Your task to perform on an android device: turn on airplane mode Image 0: 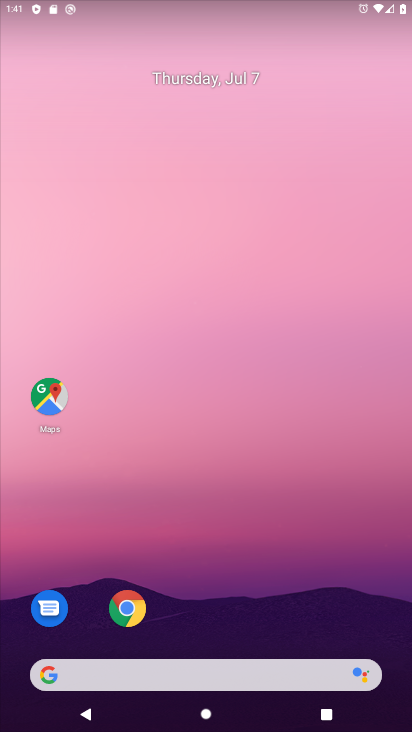
Step 0: drag from (233, 703) to (233, 220)
Your task to perform on an android device: turn on airplane mode Image 1: 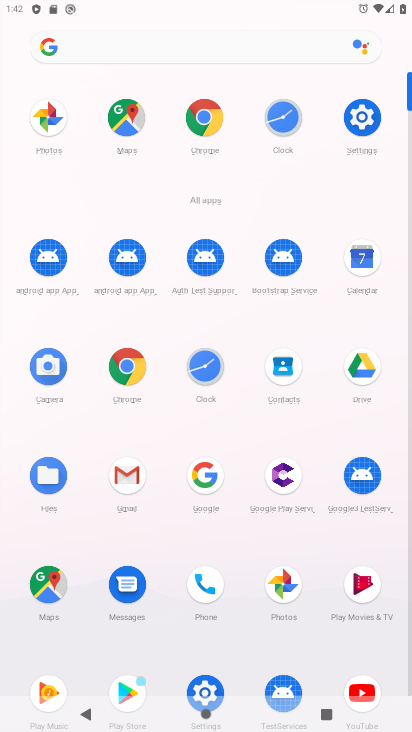
Step 1: click (366, 112)
Your task to perform on an android device: turn on airplane mode Image 2: 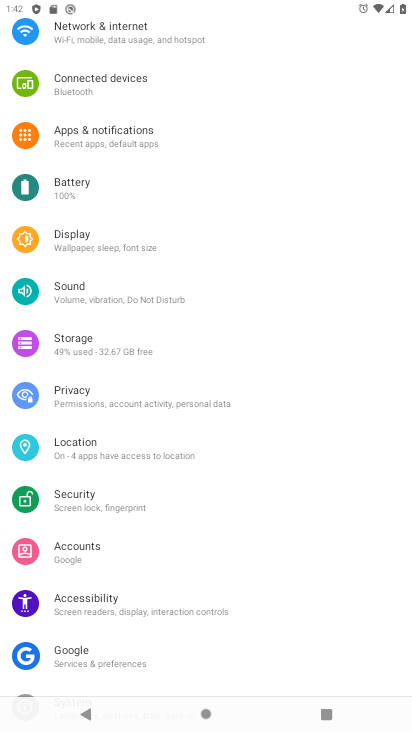
Step 2: drag from (170, 67) to (188, 500)
Your task to perform on an android device: turn on airplane mode Image 3: 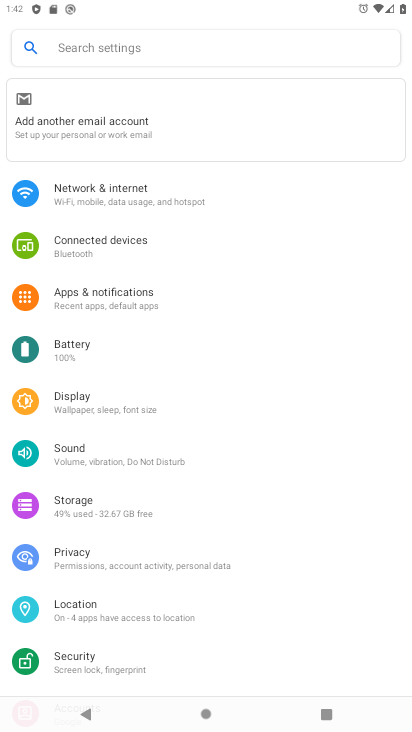
Step 3: click (112, 194)
Your task to perform on an android device: turn on airplane mode Image 4: 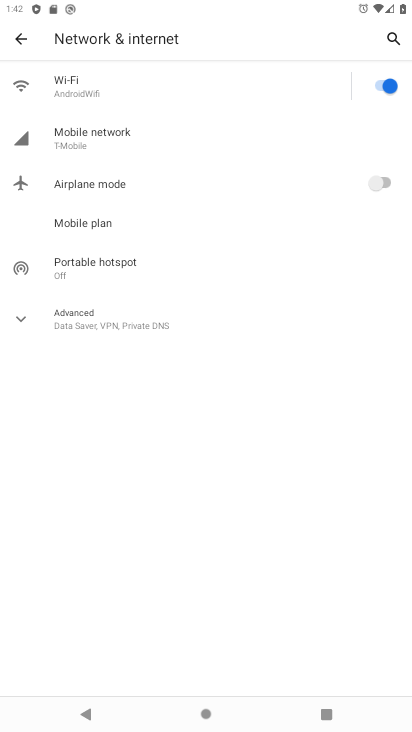
Step 4: click (390, 179)
Your task to perform on an android device: turn on airplane mode Image 5: 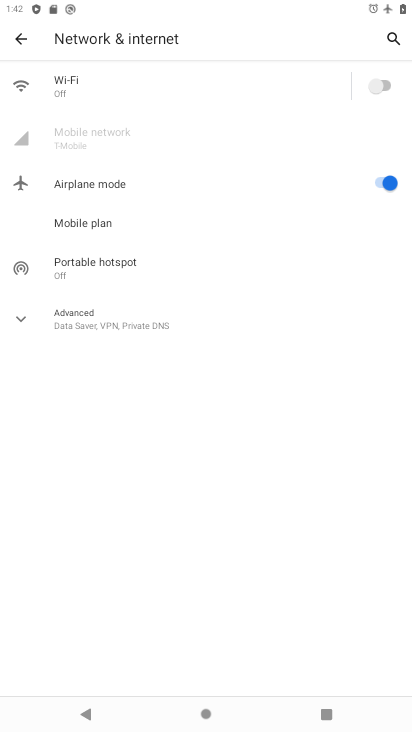
Step 5: task complete